Your task to perform on an android device: Go to settings Image 0: 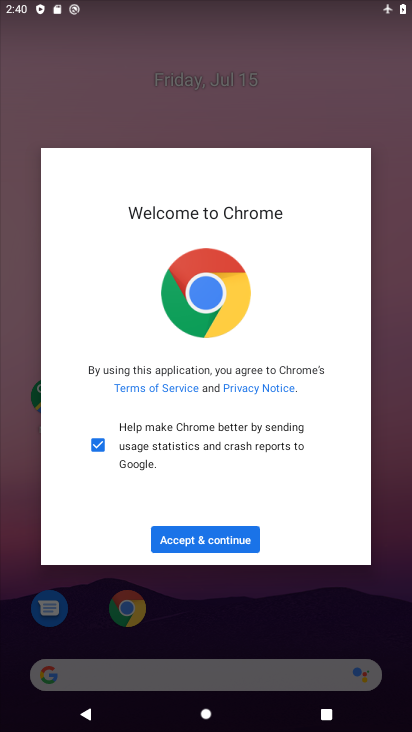
Step 0: press home button
Your task to perform on an android device: Go to settings Image 1: 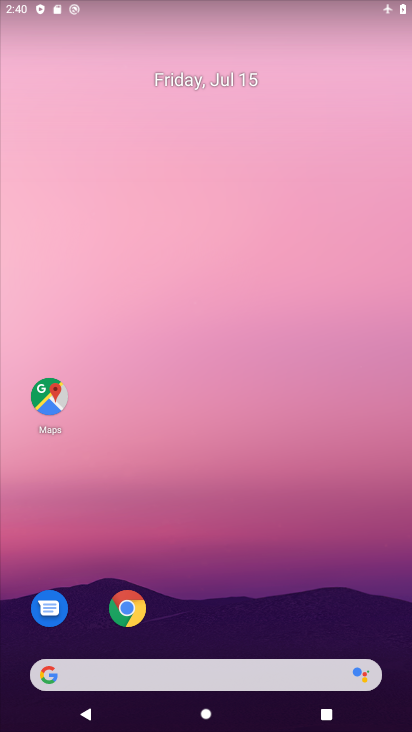
Step 1: drag from (195, 405) to (228, 221)
Your task to perform on an android device: Go to settings Image 2: 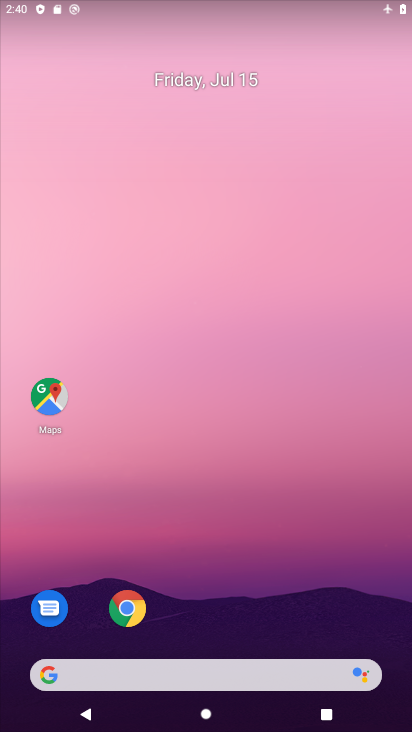
Step 2: drag from (188, 645) to (257, 184)
Your task to perform on an android device: Go to settings Image 3: 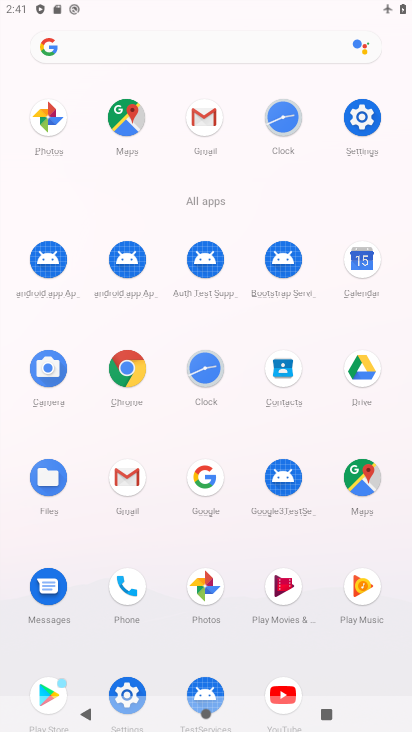
Step 3: click (134, 688)
Your task to perform on an android device: Go to settings Image 4: 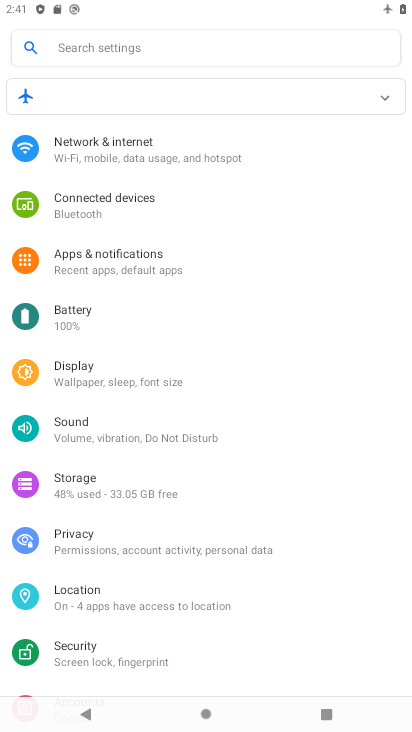
Step 4: task complete